Your task to perform on an android device: Open the calendar and show me this week's events? Image 0: 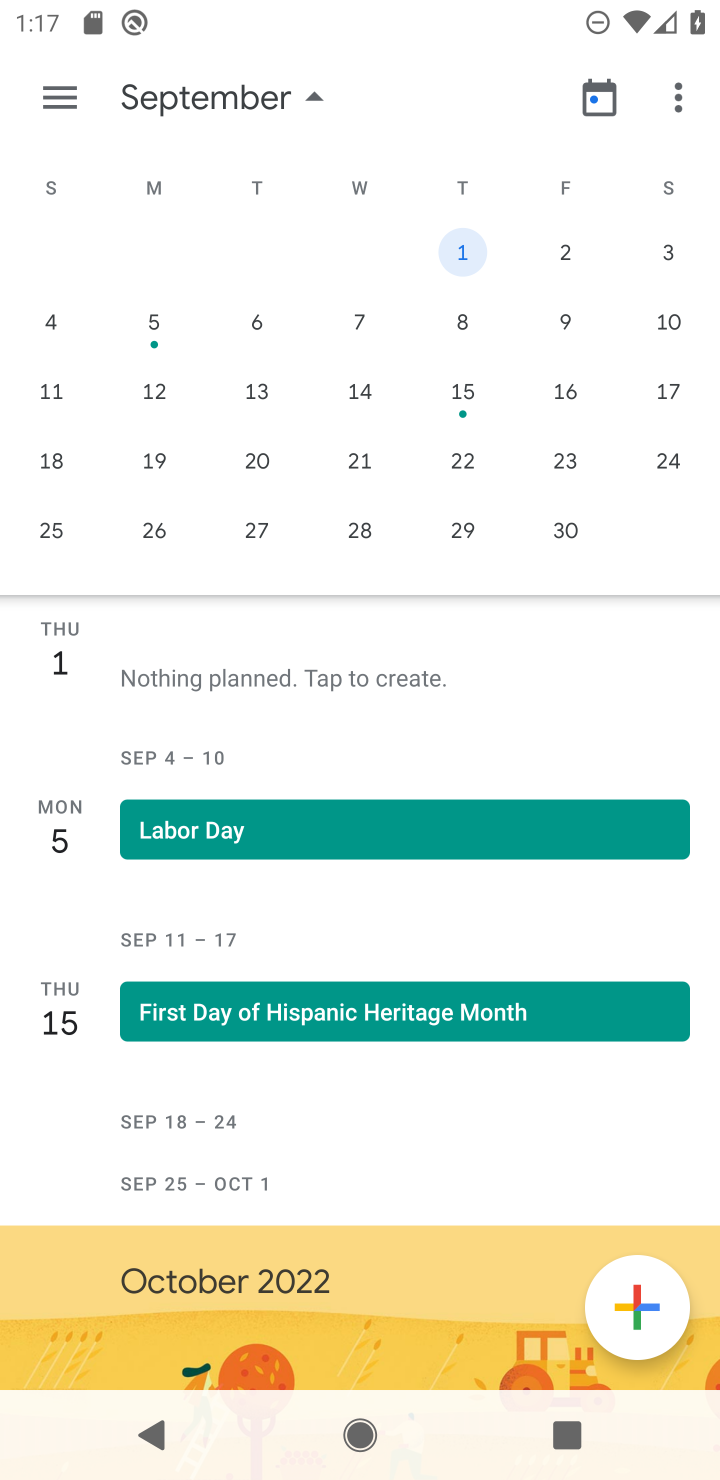
Step 0: drag from (206, 405) to (718, 419)
Your task to perform on an android device: Open the calendar and show me this week's events? Image 1: 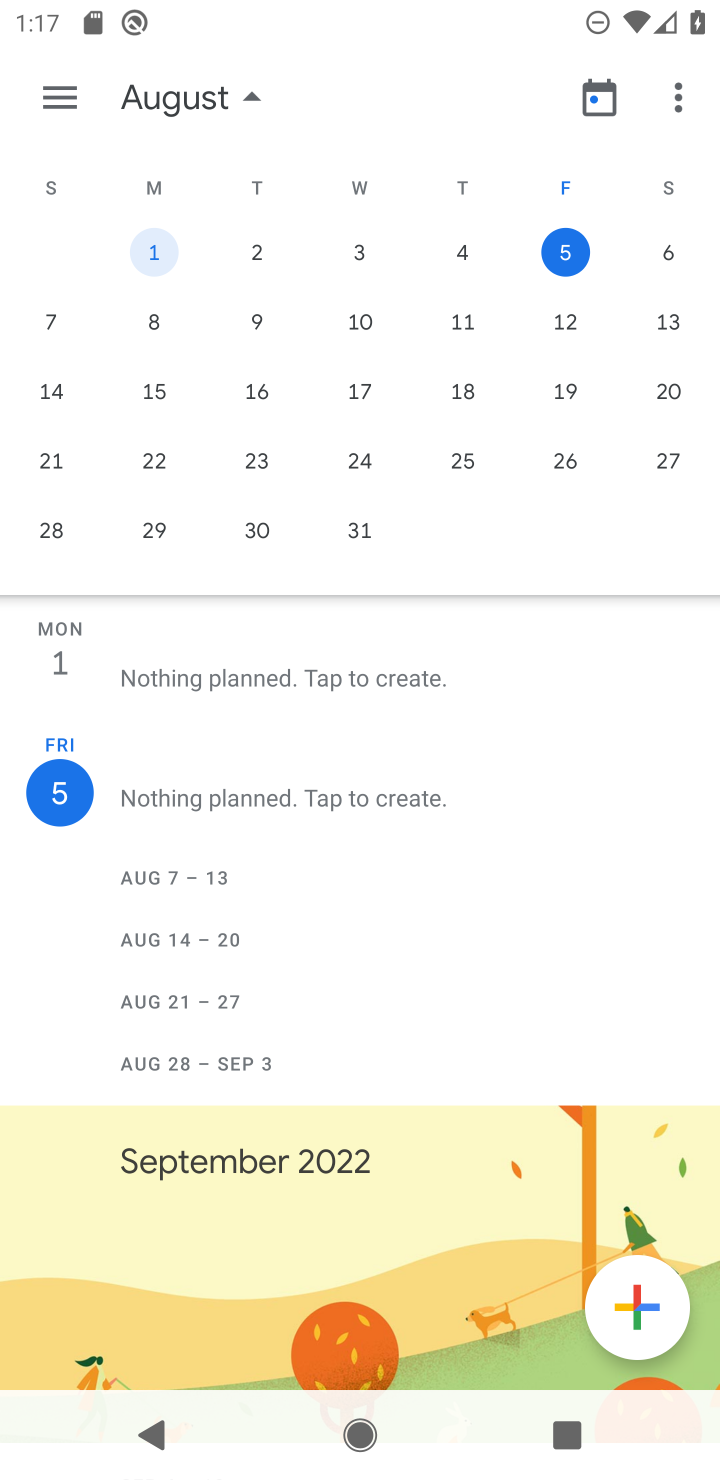
Step 1: task complete